Your task to perform on an android device: What's a good restaurant in Denver? Image 0: 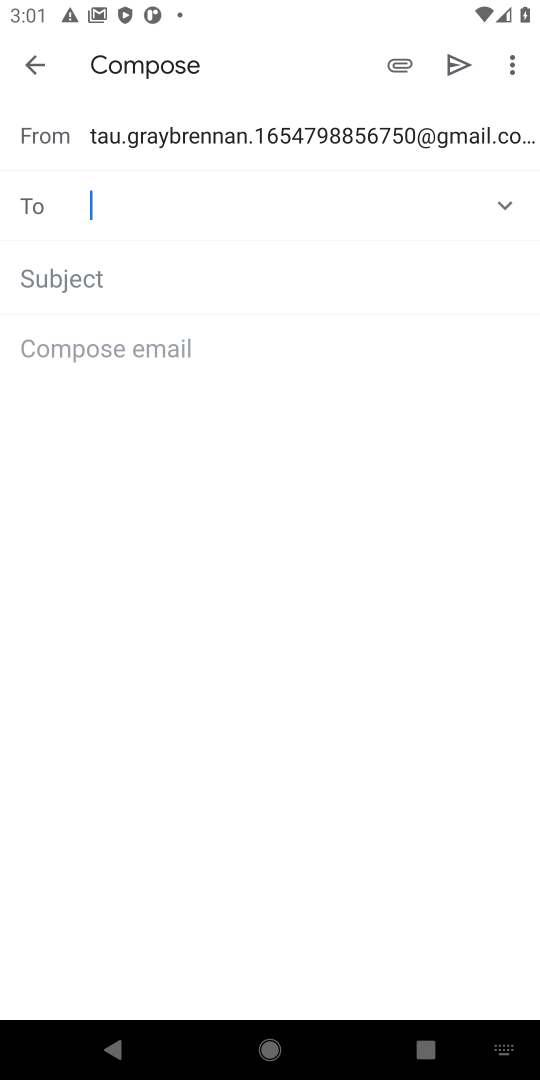
Step 0: press home button
Your task to perform on an android device: What's a good restaurant in Denver? Image 1: 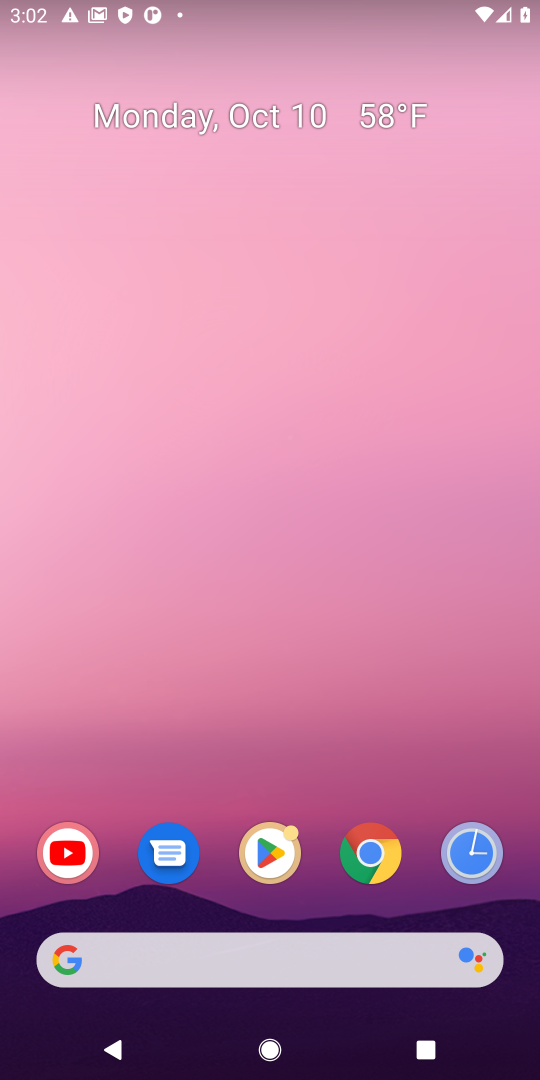
Step 1: click (229, 968)
Your task to perform on an android device: What's a good restaurant in Denver? Image 2: 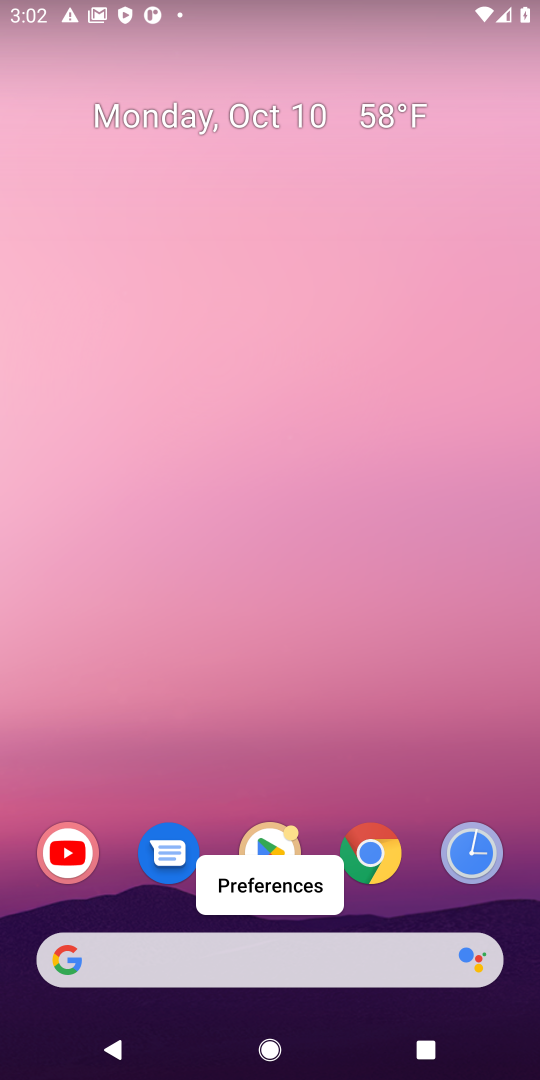
Step 2: click (163, 954)
Your task to perform on an android device: What's a good restaurant in Denver? Image 3: 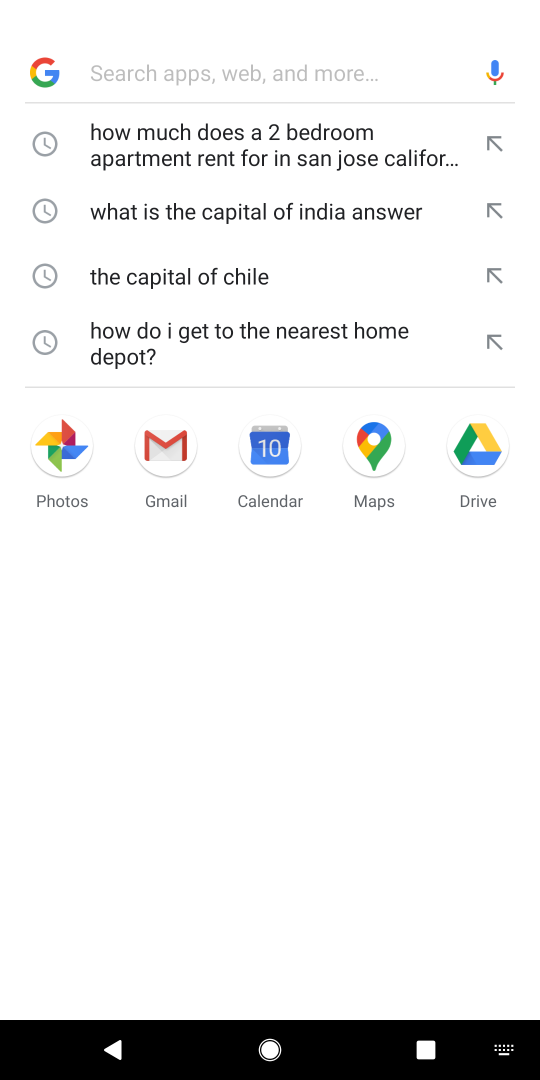
Step 3: type "What's a good restaurant in Denver?"
Your task to perform on an android device: What's a good restaurant in Denver? Image 4: 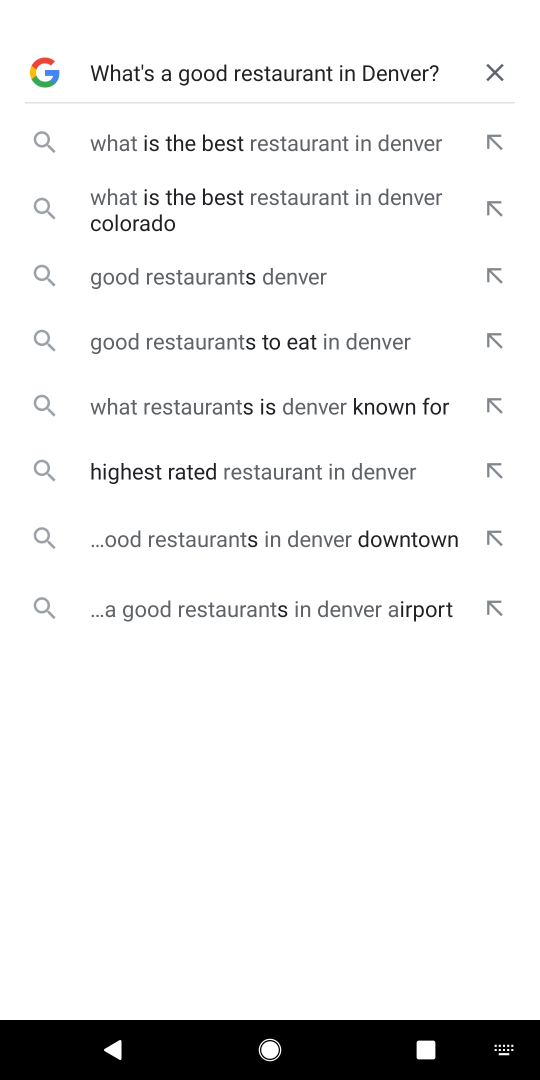
Step 4: click (258, 151)
Your task to perform on an android device: What's a good restaurant in Denver? Image 5: 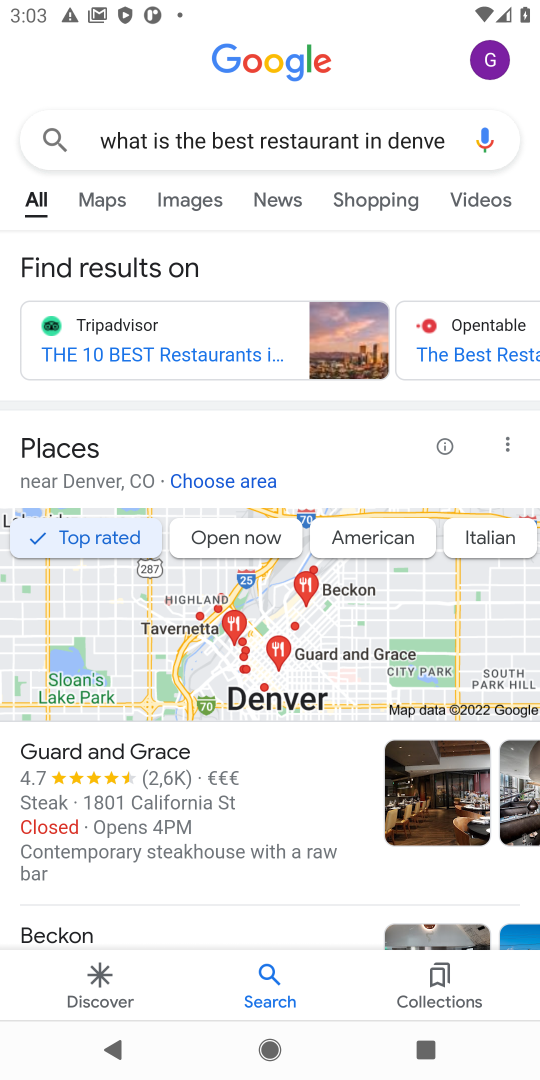
Step 5: task complete